Your task to perform on an android device: Open ESPN.com Image 0: 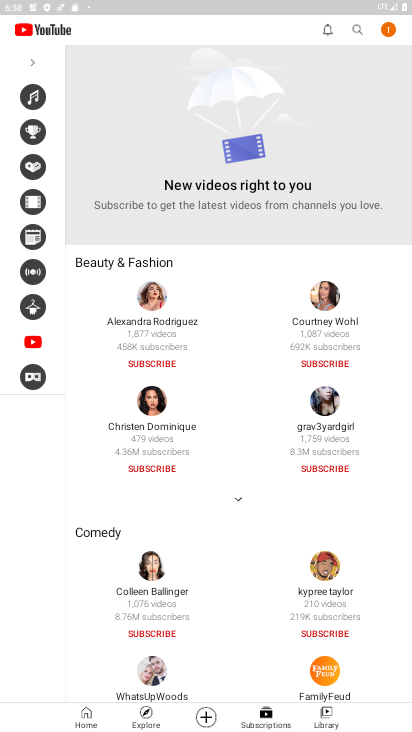
Step 0: press home button
Your task to perform on an android device: Open ESPN.com Image 1: 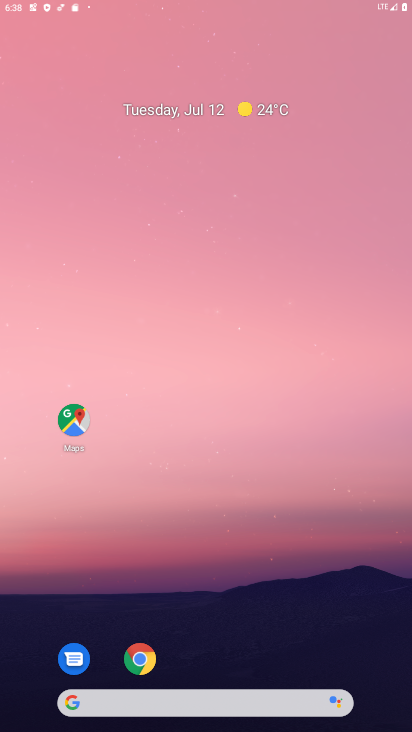
Step 1: click (306, 34)
Your task to perform on an android device: Open ESPN.com Image 2: 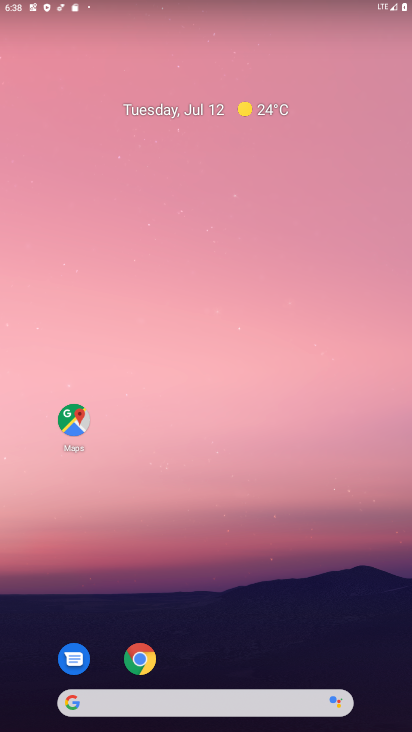
Step 2: drag from (191, 606) to (189, 14)
Your task to perform on an android device: Open ESPN.com Image 3: 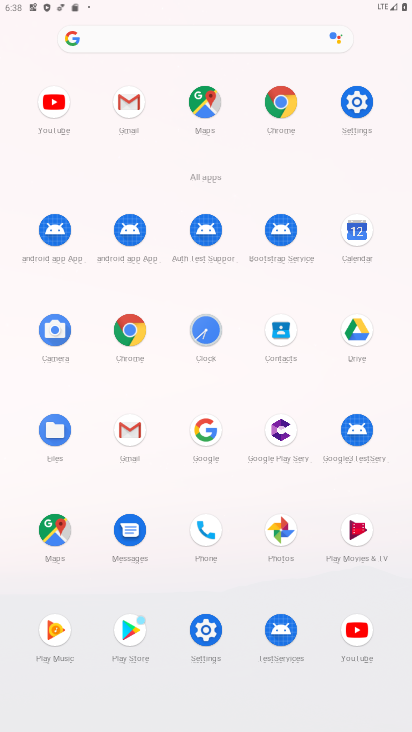
Step 3: click (209, 429)
Your task to perform on an android device: Open ESPN.com Image 4: 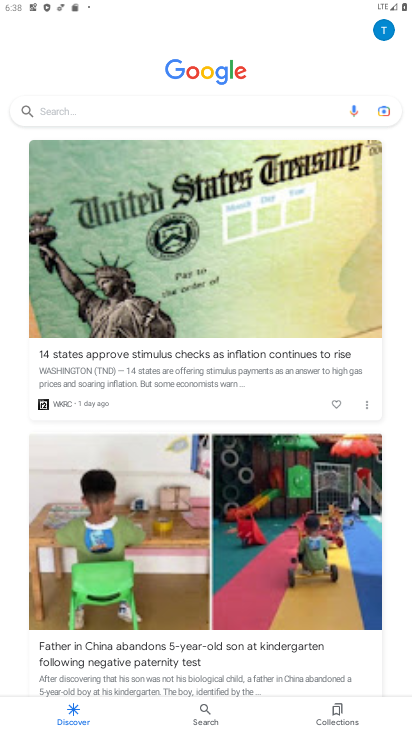
Step 4: click (131, 119)
Your task to perform on an android device: Open ESPN.com Image 5: 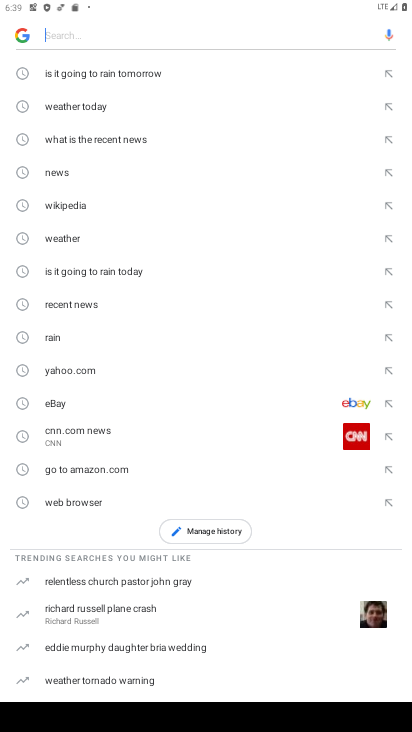
Step 5: type "ESPN.com"
Your task to perform on an android device: Open ESPN.com Image 6: 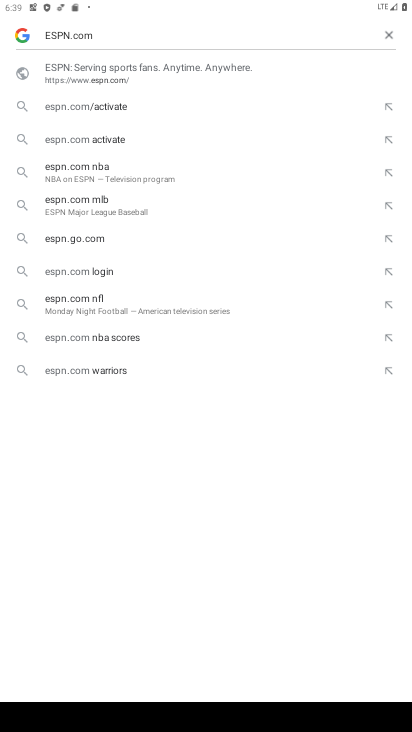
Step 6: click (144, 73)
Your task to perform on an android device: Open ESPN.com Image 7: 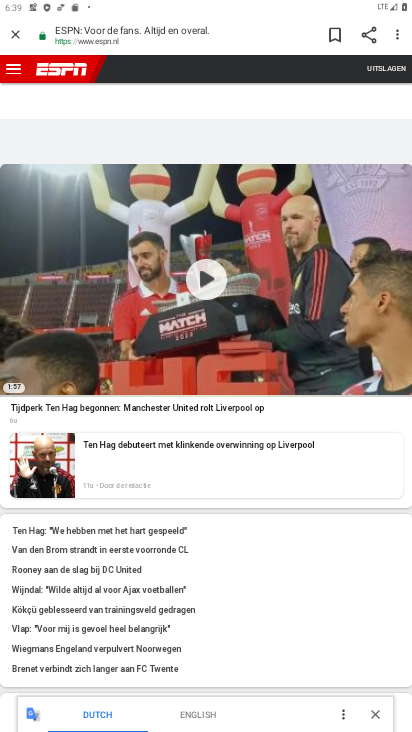
Step 7: task complete